Your task to perform on an android device: star an email in the gmail app Image 0: 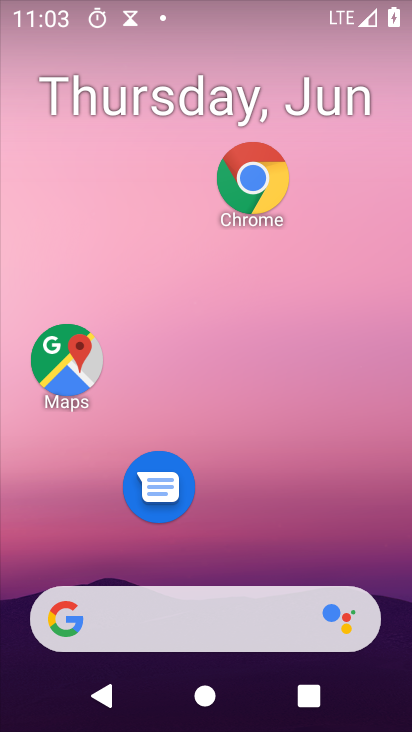
Step 0: drag from (234, 730) to (220, 18)
Your task to perform on an android device: star an email in the gmail app Image 1: 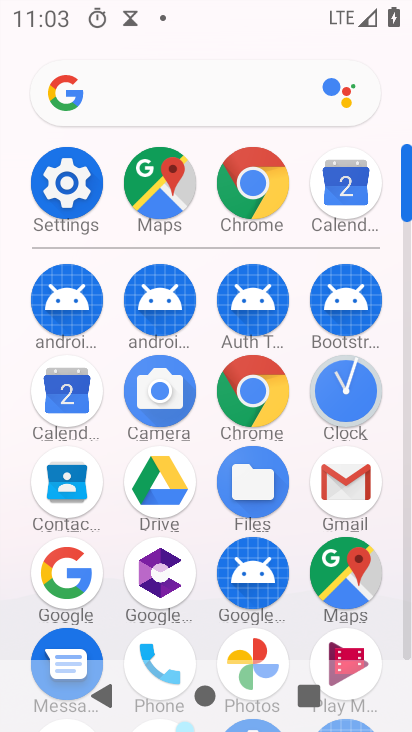
Step 1: click (339, 492)
Your task to perform on an android device: star an email in the gmail app Image 2: 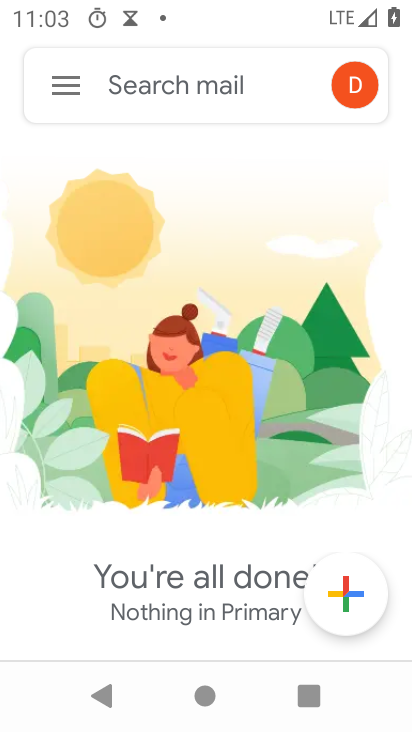
Step 2: click (68, 86)
Your task to perform on an android device: star an email in the gmail app Image 3: 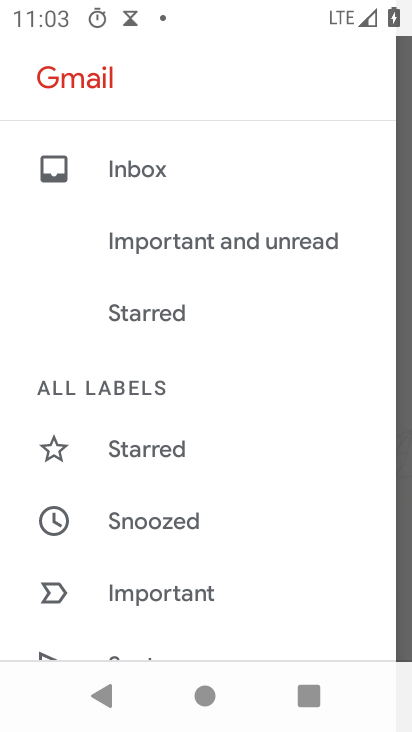
Step 3: drag from (161, 639) to (161, 275)
Your task to perform on an android device: star an email in the gmail app Image 4: 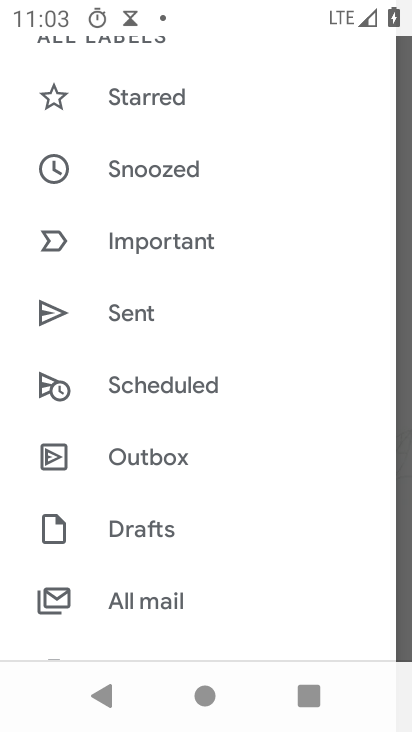
Step 4: drag from (157, 620) to (152, 252)
Your task to perform on an android device: star an email in the gmail app Image 5: 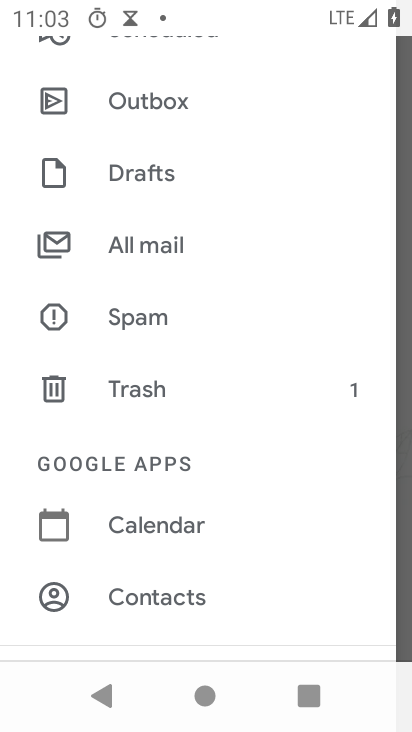
Step 5: drag from (150, 611) to (158, 277)
Your task to perform on an android device: star an email in the gmail app Image 6: 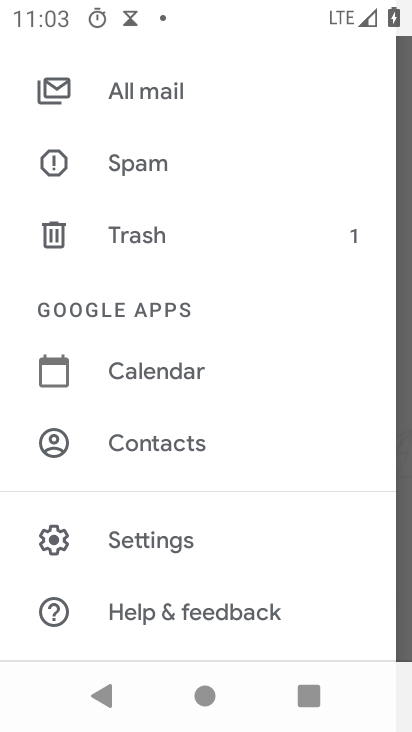
Step 6: drag from (186, 231) to (183, 599)
Your task to perform on an android device: star an email in the gmail app Image 7: 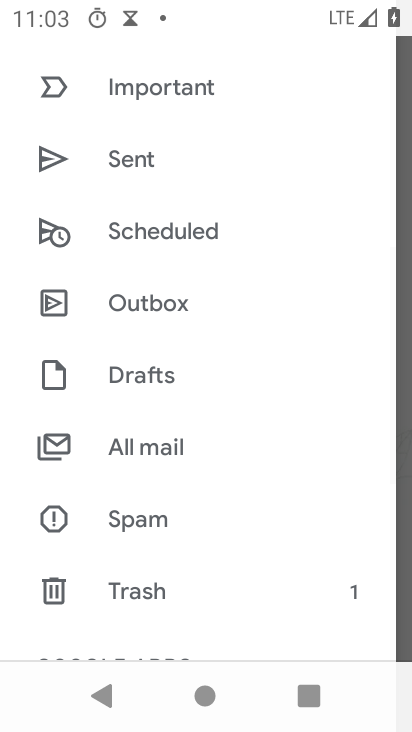
Step 7: drag from (210, 160) to (217, 546)
Your task to perform on an android device: star an email in the gmail app Image 8: 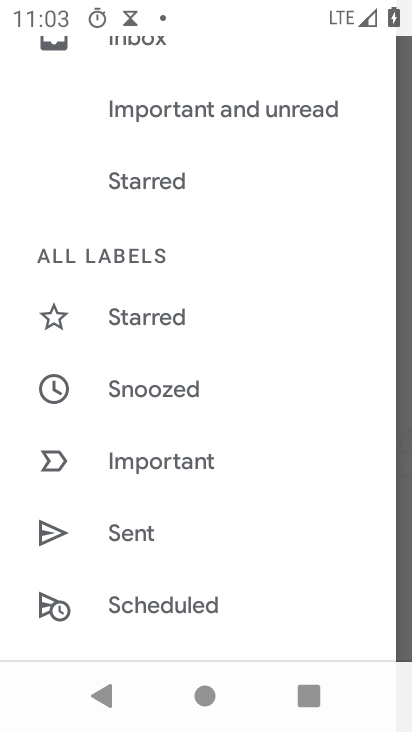
Step 8: drag from (231, 200) to (227, 562)
Your task to perform on an android device: star an email in the gmail app Image 9: 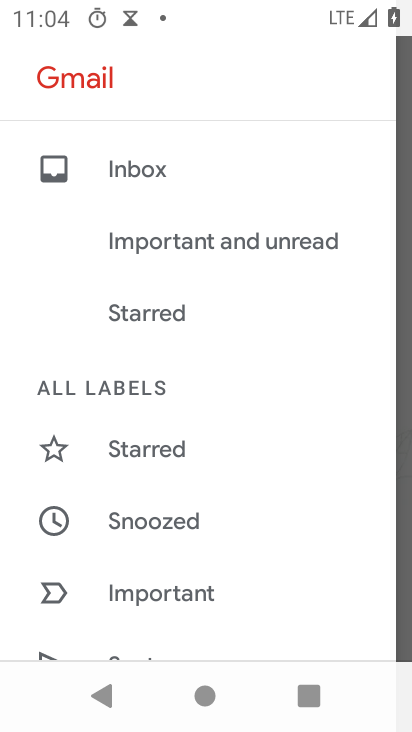
Step 9: click (135, 167)
Your task to perform on an android device: star an email in the gmail app Image 10: 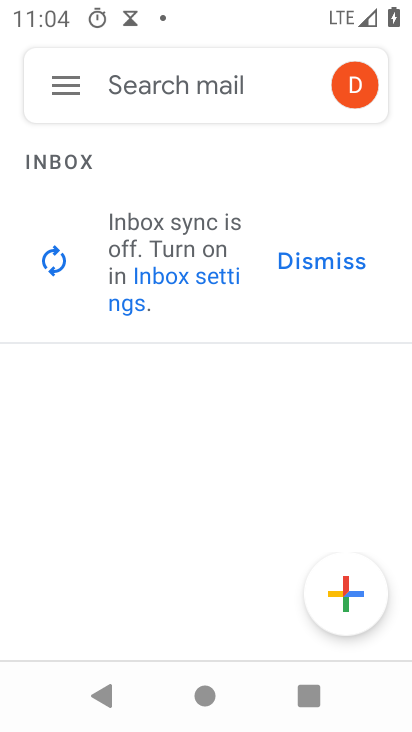
Step 10: click (71, 88)
Your task to perform on an android device: star an email in the gmail app Image 11: 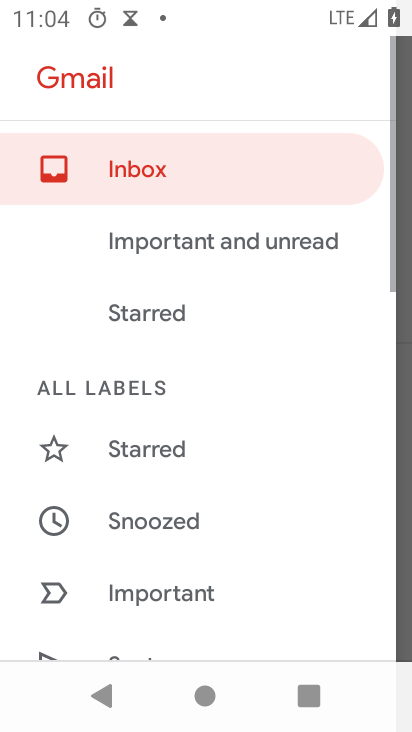
Step 11: click (176, 163)
Your task to perform on an android device: star an email in the gmail app Image 12: 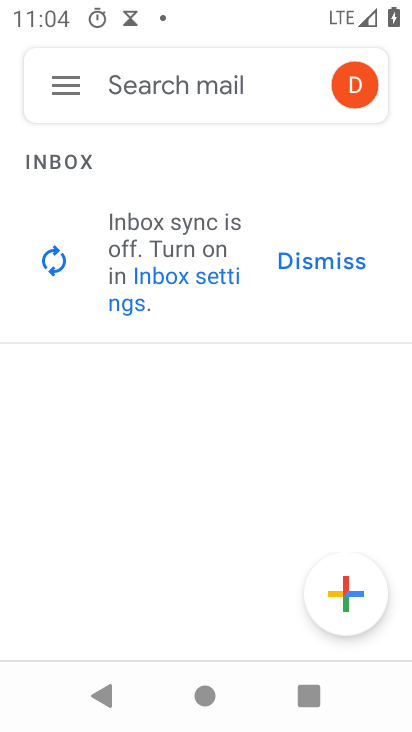
Step 12: task complete